Your task to perform on an android device: set the timer Image 0: 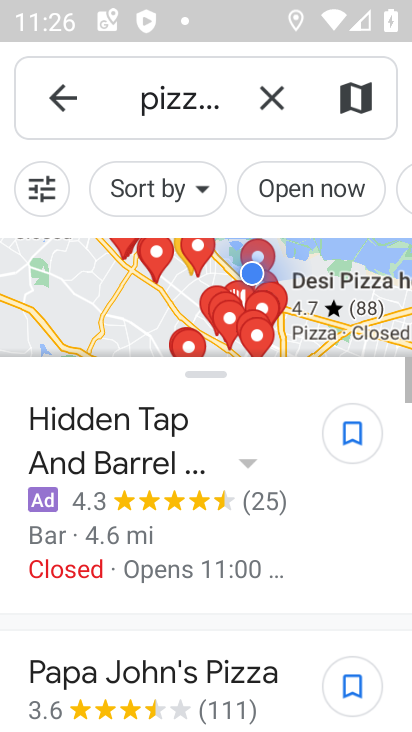
Step 0: press home button
Your task to perform on an android device: set the timer Image 1: 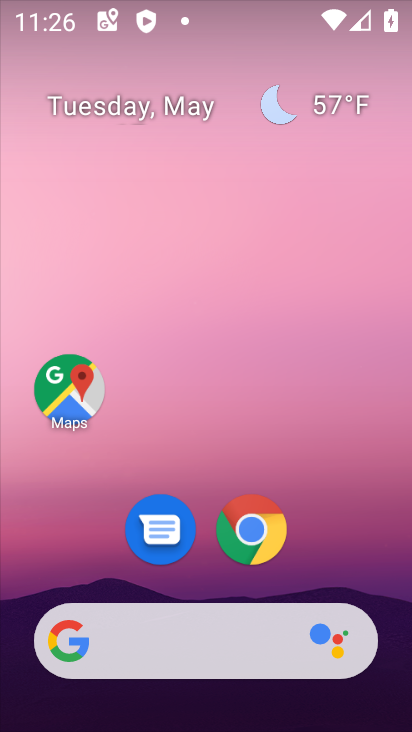
Step 1: drag from (219, 590) to (243, 9)
Your task to perform on an android device: set the timer Image 2: 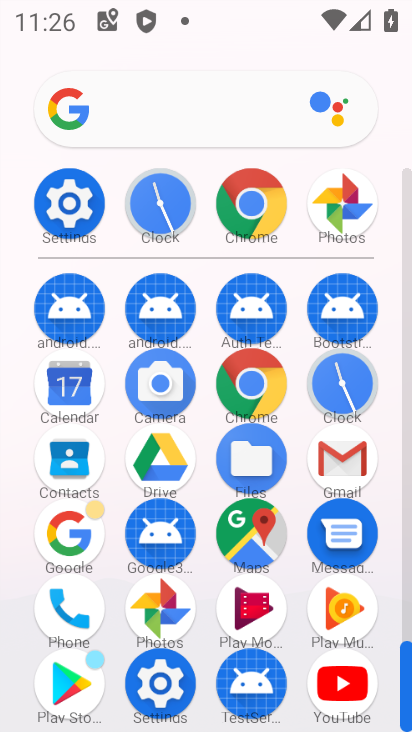
Step 2: click (149, 186)
Your task to perform on an android device: set the timer Image 3: 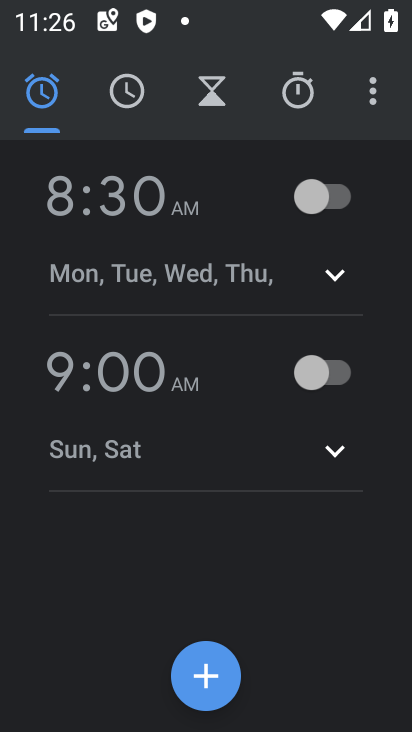
Step 3: click (219, 97)
Your task to perform on an android device: set the timer Image 4: 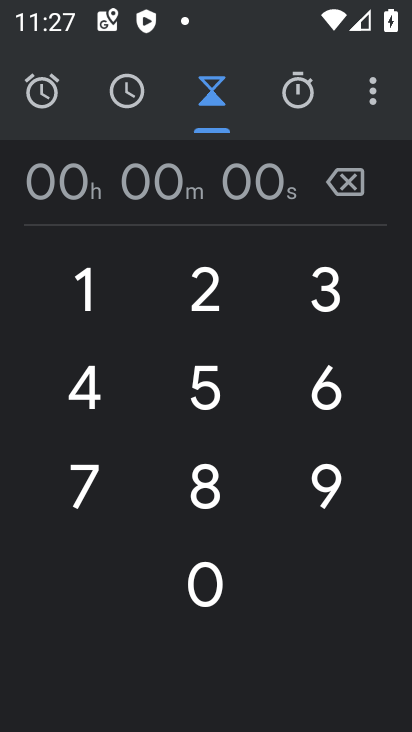
Step 4: click (330, 281)
Your task to perform on an android device: set the timer Image 5: 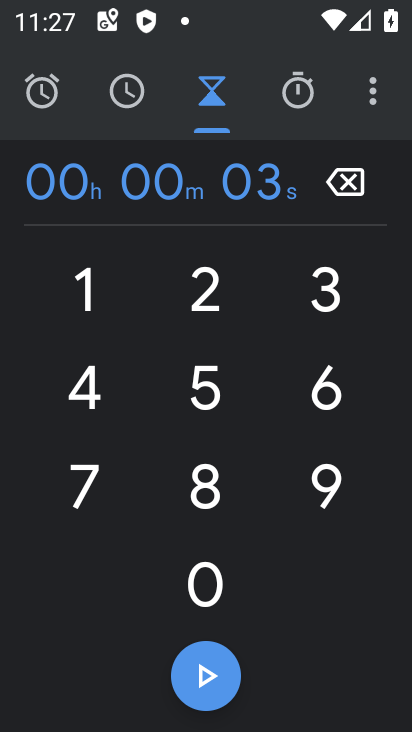
Step 5: click (202, 694)
Your task to perform on an android device: set the timer Image 6: 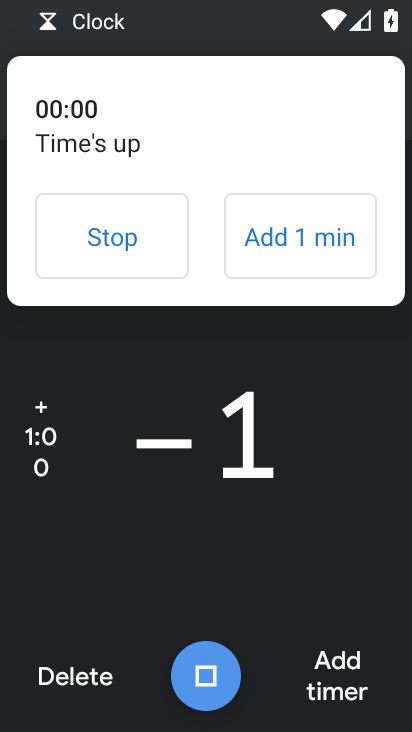
Step 6: task complete